Your task to perform on an android device: Search for Mexican restaurants on Maps Image 0: 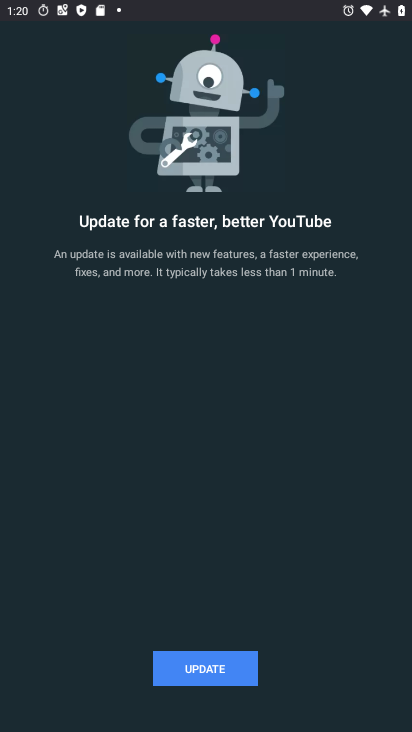
Step 0: press home button
Your task to perform on an android device: Search for Mexican restaurants on Maps Image 1: 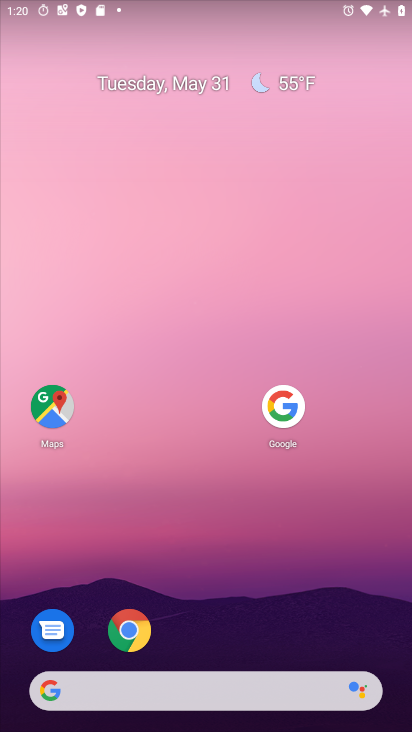
Step 1: drag from (132, 682) to (269, 149)
Your task to perform on an android device: Search for Mexican restaurants on Maps Image 2: 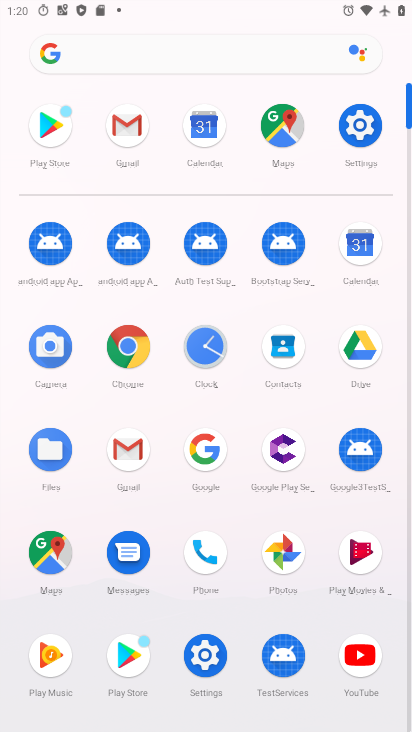
Step 2: click (281, 129)
Your task to perform on an android device: Search for Mexican restaurants on Maps Image 3: 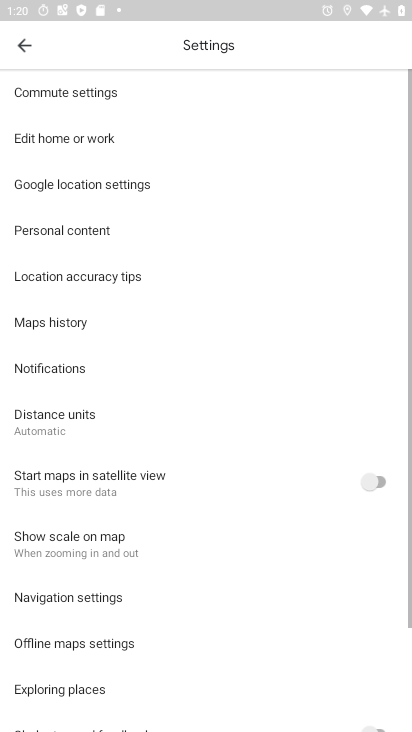
Step 3: click (22, 45)
Your task to perform on an android device: Search for Mexican restaurants on Maps Image 4: 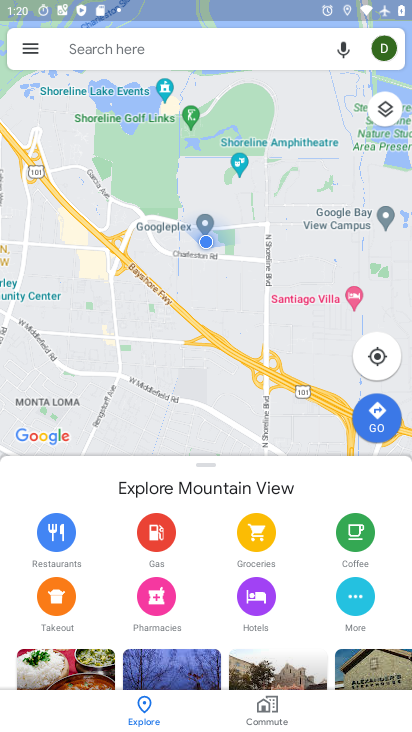
Step 4: click (185, 50)
Your task to perform on an android device: Search for Mexican restaurants on Maps Image 5: 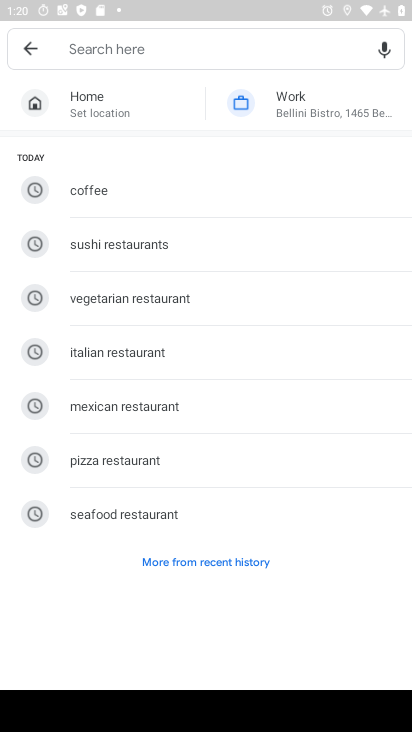
Step 5: click (118, 411)
Your task to perform on an android device: Search for Mexican restaurants on Maps Image 6: 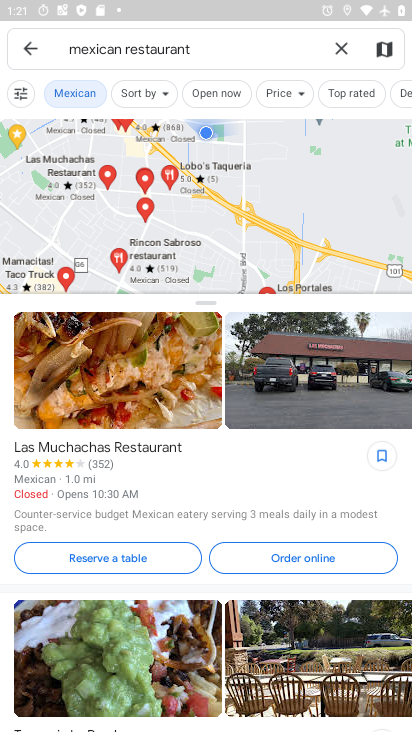
Step 6: task complete